Your task to perform on an android device: toggle wifi Image 0: 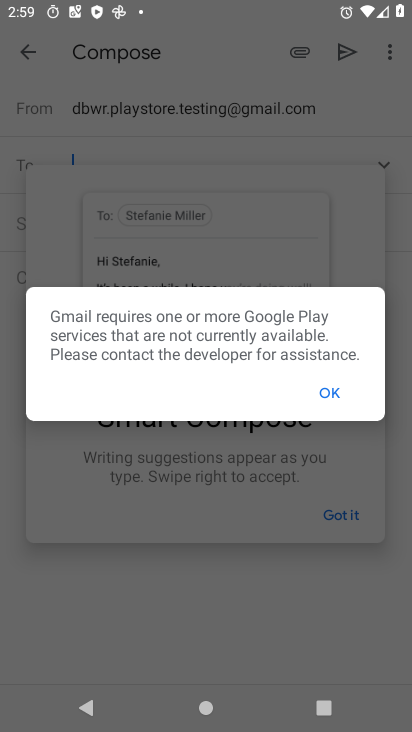
Step 0: click (339, 396)
Your task to perform on an android device: toggle wifi Image 1: 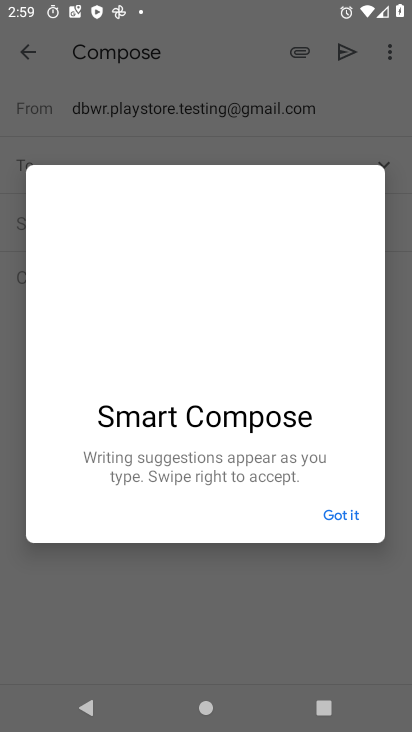
Step 1: press home button
Your task to perform on an android device: toggle wifi Image 2: 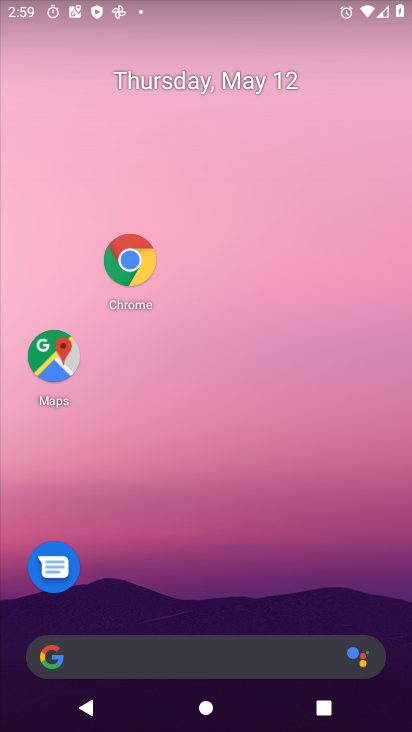
Step 2: drag from (193, 642) to (235, 357)
Your task to perform on an android device: toggle wifi Image 3: 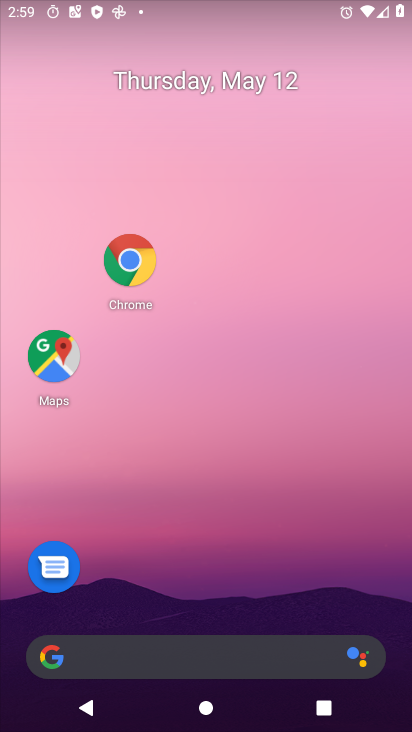
Step 3: drag from (216, 600) to (262, 172)
Your task to perform on an android device: toggle wifi Image 4: 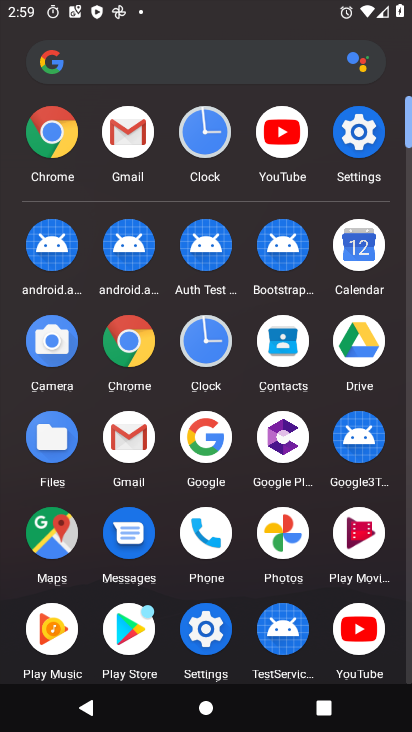
Step 4: click (377, 134)
Your task to perform on an android device: toggle wifi Image 5: 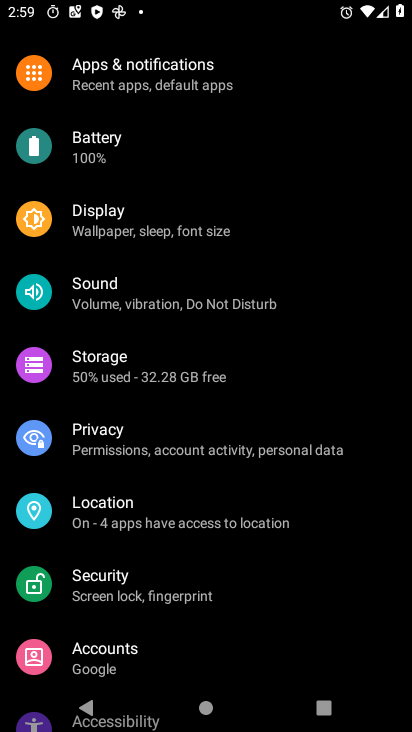
Step 5: click (205, 79)
Your task to perform on an android device: toggle wifi Image 6: 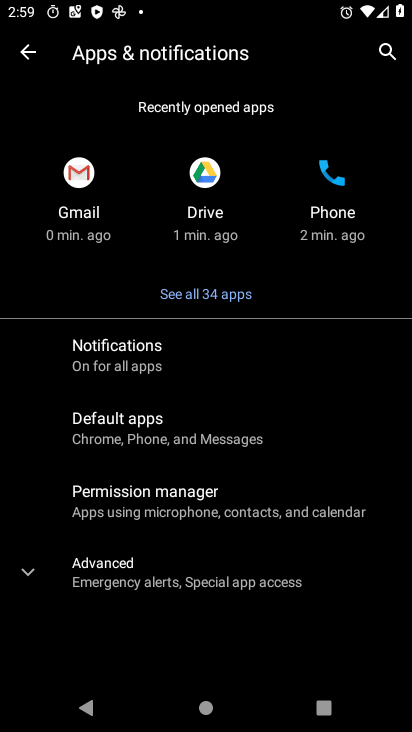
Step 6: click (22, 43)
Your task to perform on an android device: toggle wifi Image 7: 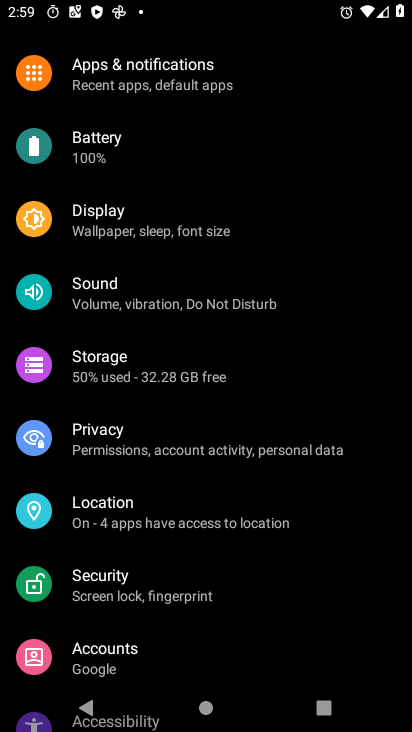
Step 7: drag from (167, 51) to (185, 336)
Your task to perform on an android device: toggle wifi Image 8: 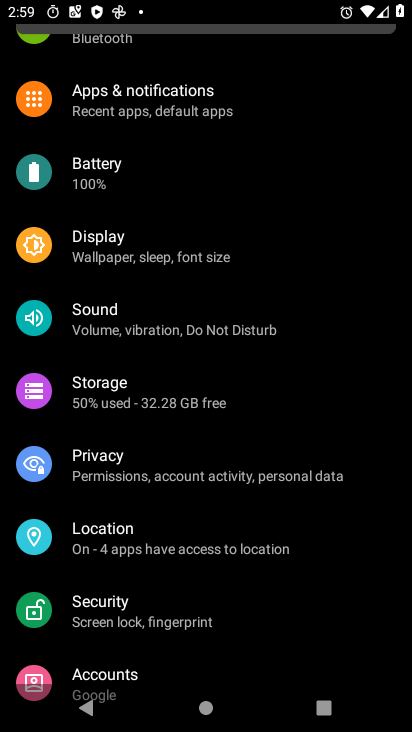
Step 8: drag from (143, 66) to (150, 289)
Your task to perform on an android device: toggle wifi Image 9: 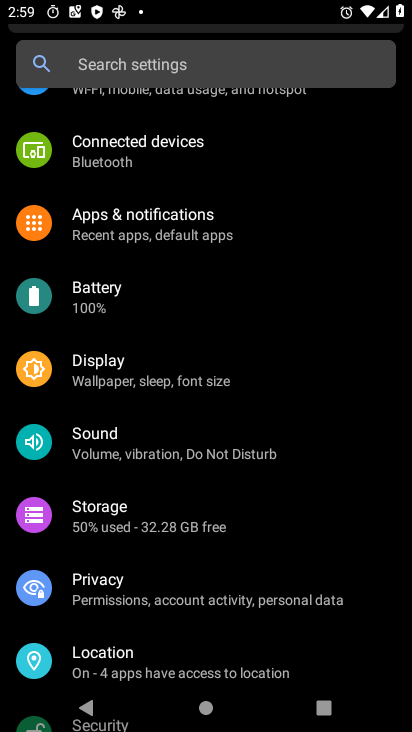
Step 9: drag from (152, 132) to (171, 335)
Your task to perform on an android device: toggle wifi Image 10: 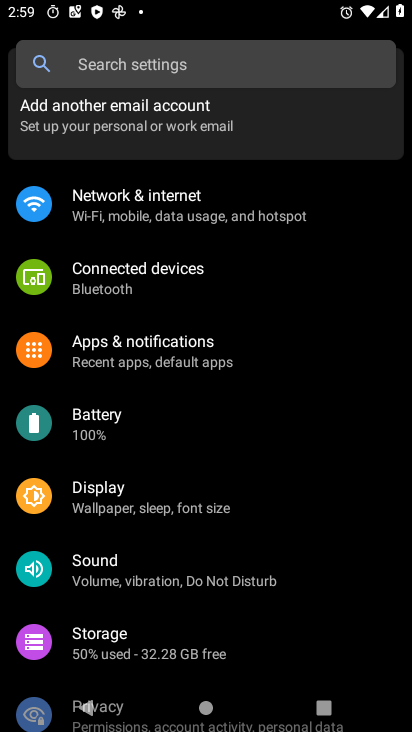
Step 10: click (152, 220)
Your task to perform on an android device: toggle wifi Image 11: 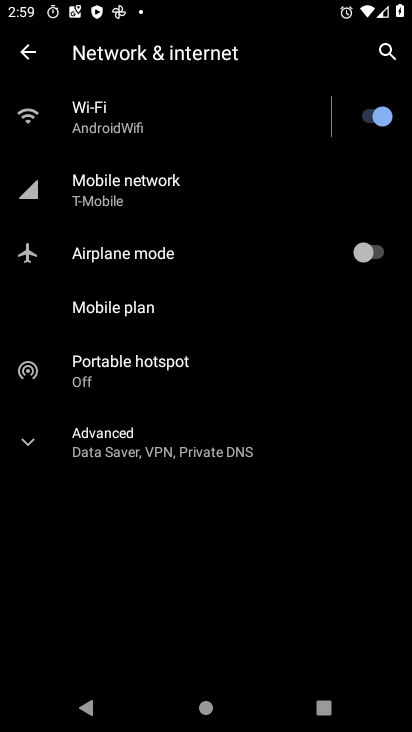
Step 11: click (378, 113)
Your task to perform on an android device: toggle wifi Image 12: 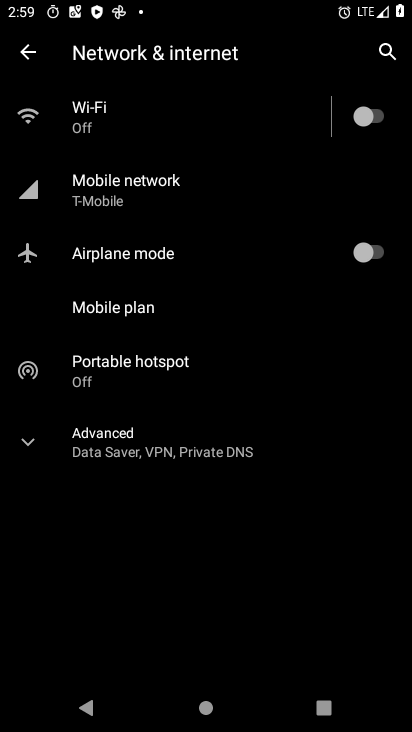
Step 12: task complete